Your task to perform on an android device: Play the last video I watched on Youtube Image 0: 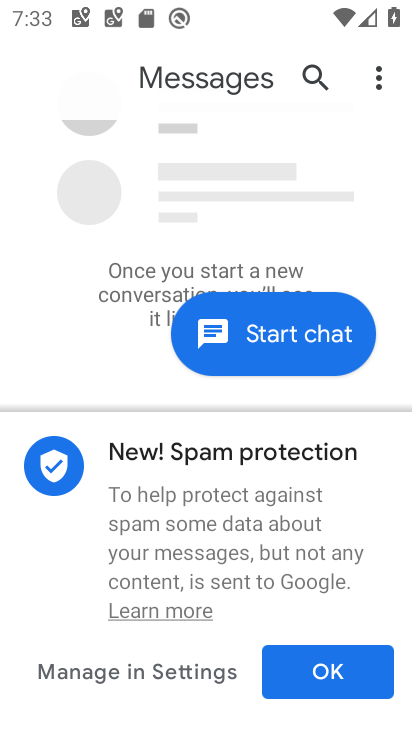
Step 0: press home button
Your task to perform on an android device: Play the last video I watched on Youtube Image 1: 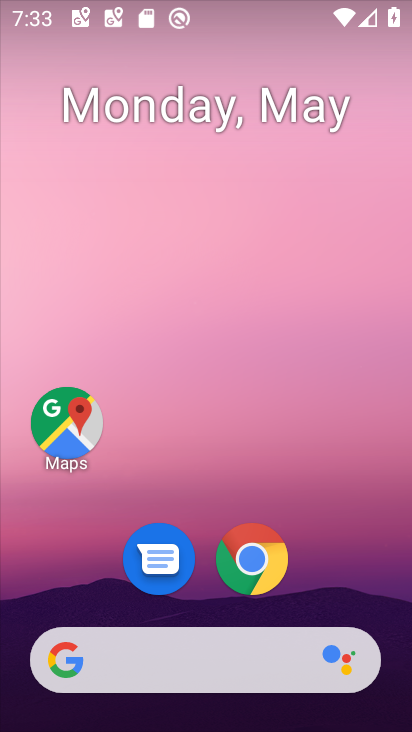
Step 1: drag from (391, 643) to (354, 49)
Your task to perform on an android device: Play the last video I watched on Youtube Image 2: 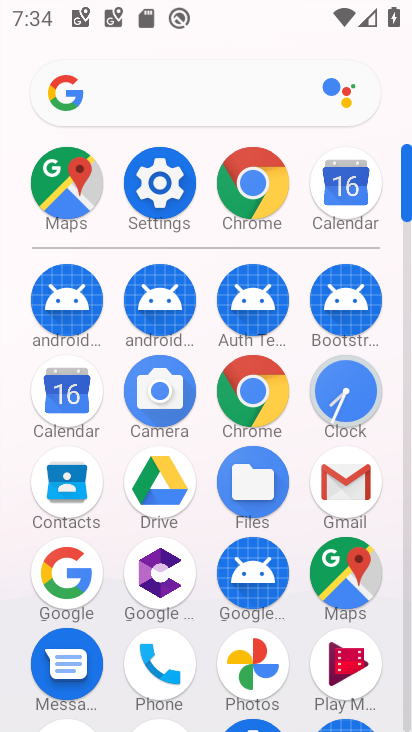
Step 2: drag from (203, 697) to (229, 196)
Your task to perform on an android device: Play the last video I watched on Youtube Image 3: 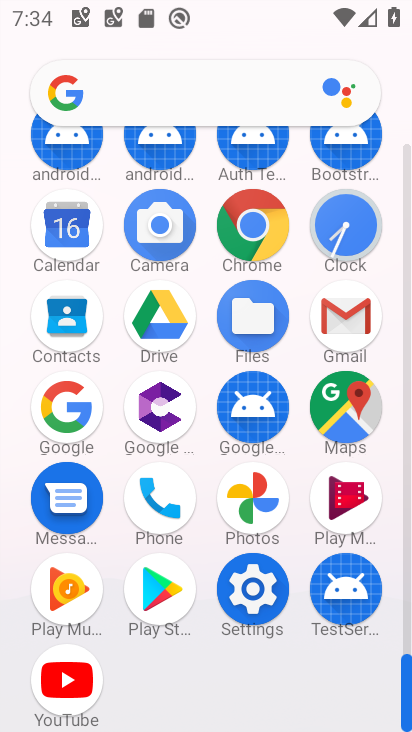
Step 3: click (72, 686)
Your task to perform on an android device: Play the last video I watched on Youtube Image 4: 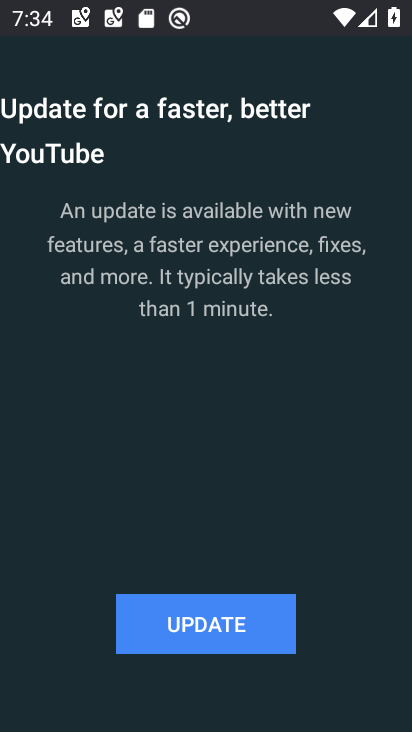
Step 4: click (204, 616)
Your task to perform on an android device: Play the last video I watched on Youtube Image 5: 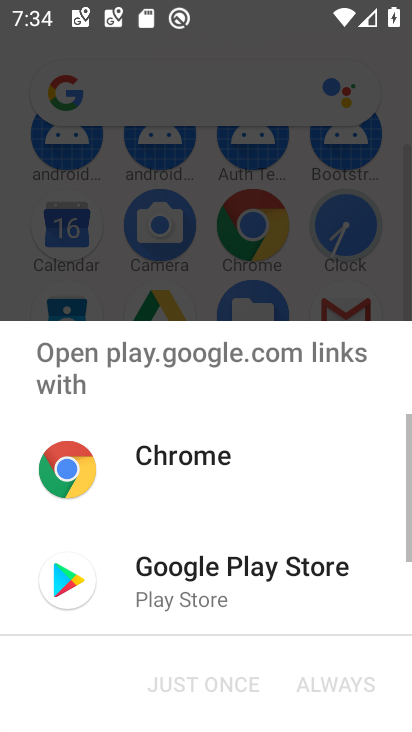
Step 5: click (137, 577)
Your task to perform on an android device: Play the last video I watched on Youtube Image 6: 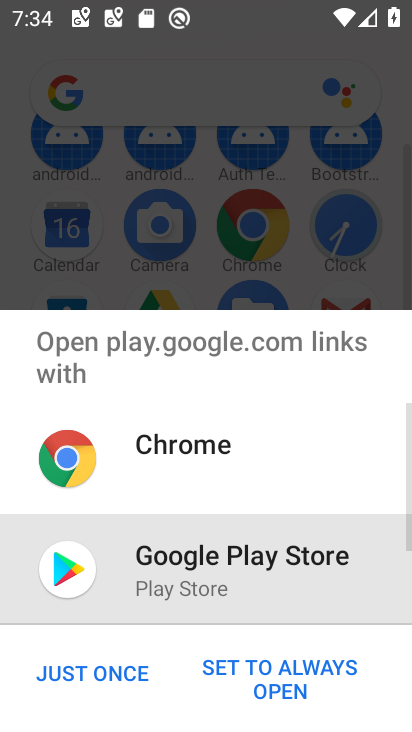
Step 6: click (68, 676)
Your task to perform on an android device: Play the last video I watched on Youtube Image 7: 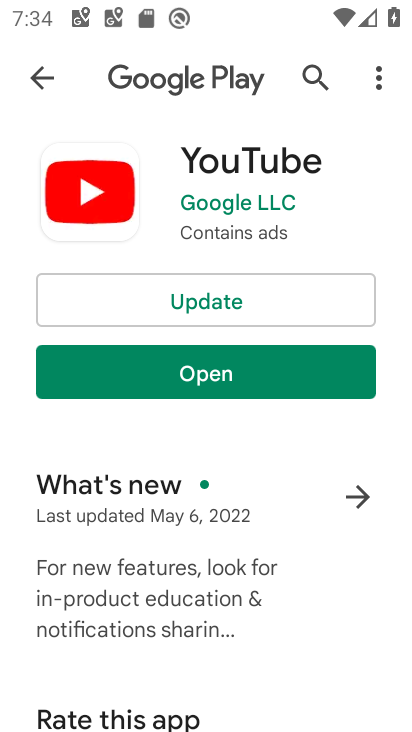
Step 7: click (172, 310)
Your task to perform on an android device: Play the last video I watched on Youtube Image 8: 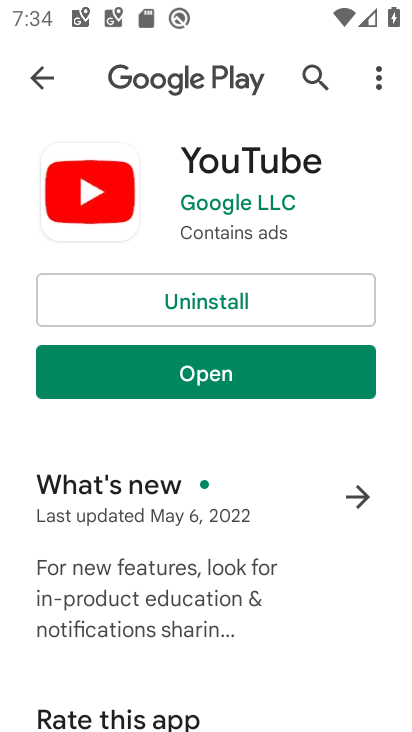
Step 8: click (206, 379)
Your task to perform on an android device: Play the last video I watched on Youtube Image 9: 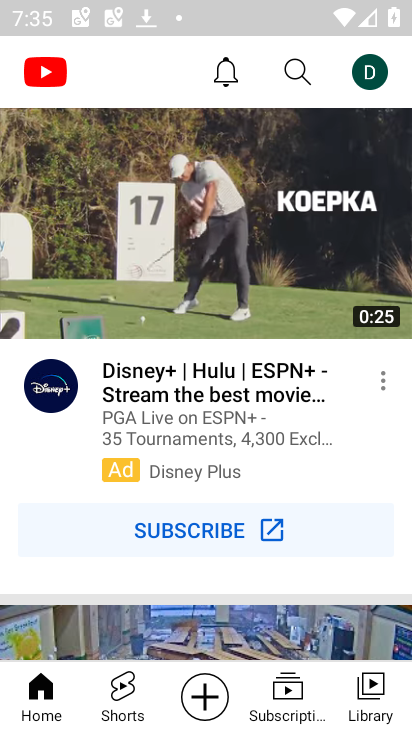
Step 9: click (361, 677)
Your task to perform on an android device: Play the last video I watched on Youtube Image 10: 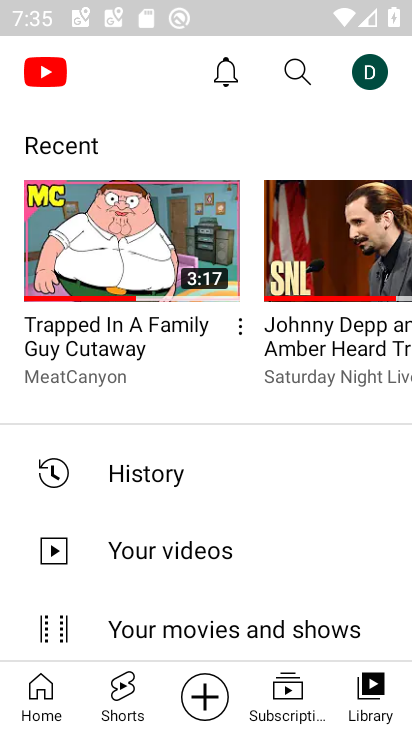
Step 10: click (110, 256)
Your task to perform on an android device: Play the last video I watched on Youtube Image 11: 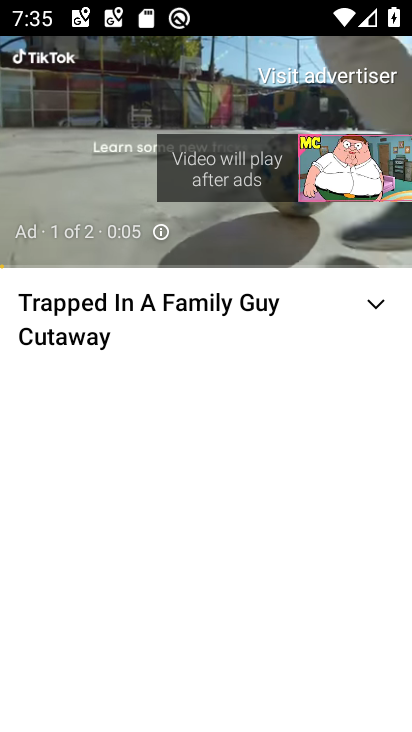
Step 11: click (188, 142)
Your task to perform on an android device: Play the last video I watched on Youtube Image 12: 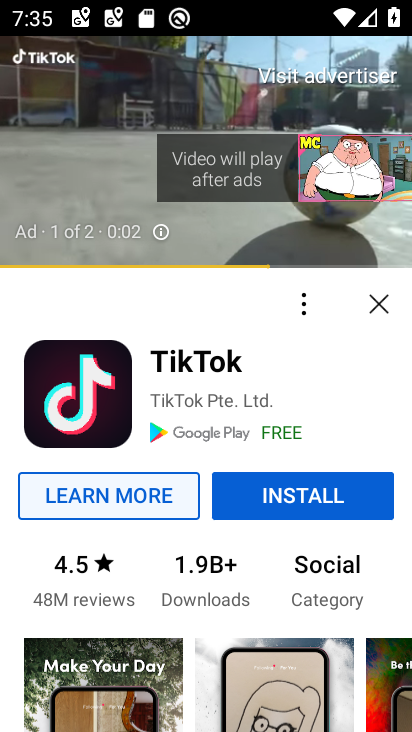
Step 12: click (376, 297)
Your task to perform on an android device: Play the last video I watched on Youtube Image 13: 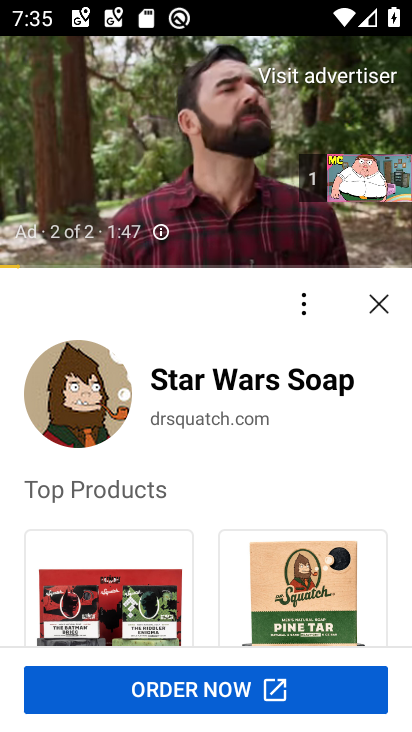
Step 13: click (383, 305)
Your task to perform on an android device: Play the last video I watched on Youtube Image 14: 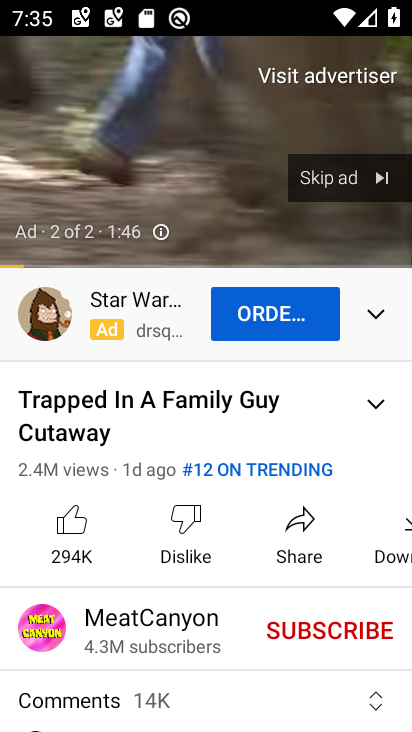
Step 14: click (331, 178)
Your task to perform on an android device: Play the last video I watched on Youtube Image 15: 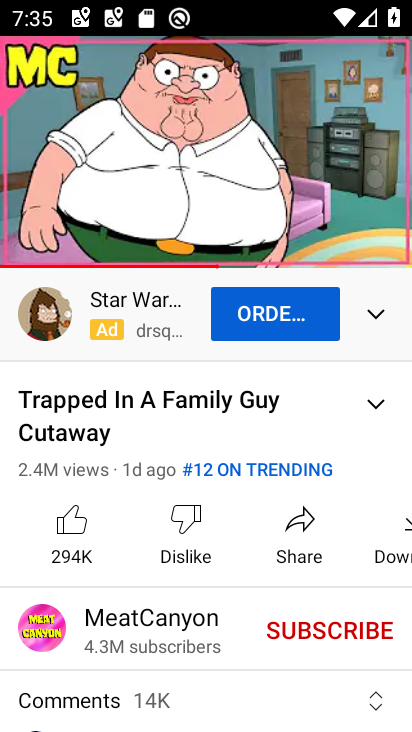
Step 15: click (188, 133)
Your task to perform on an android device: Play the last video I watched on Youtube Image 16: 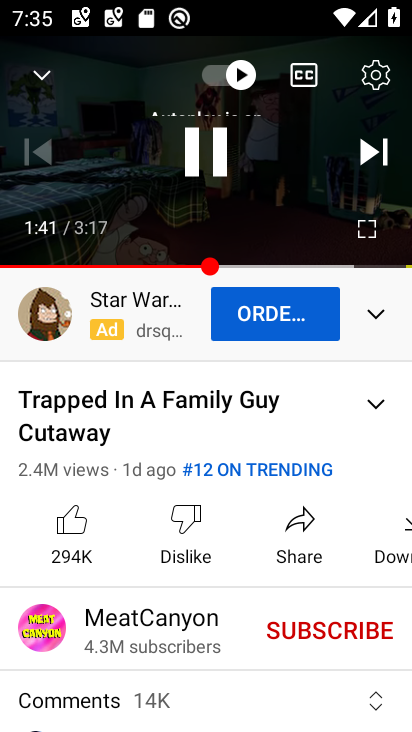
Step 16: click (188, 133)
Your task to perform on an android device: Play the last video I watched on Youtube Image 17: 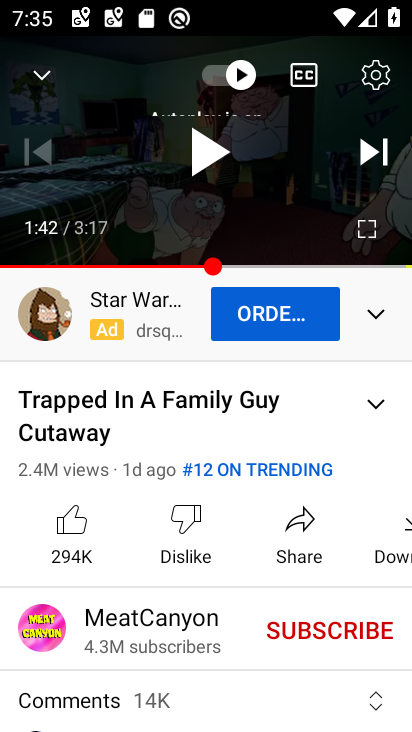
Step 17: task complete